Your task to perform on an android device: turn on notifications settings in the gmail app Image 0: 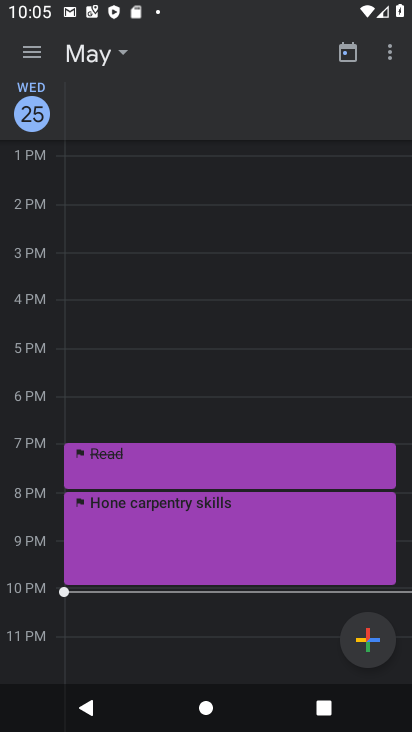
Step 0: press home button
Your task to perform on an android device: turn on notifications settings in the gmail app Image 1: 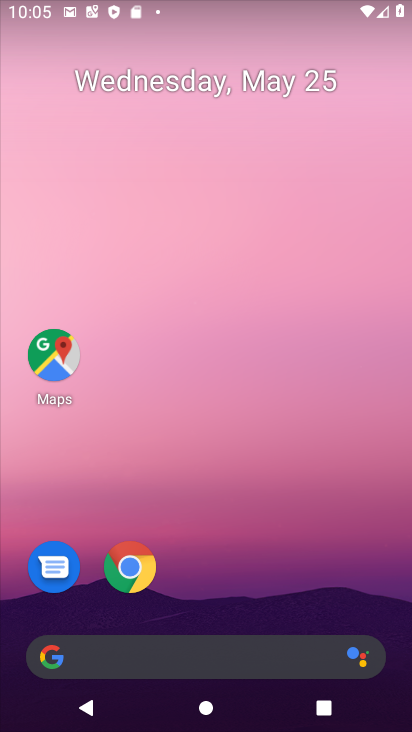
Step 1: drag from (257, 560) to (190, 14)
Your task to perform on an android device: turn on notifications settings in the gmail app Image 2: 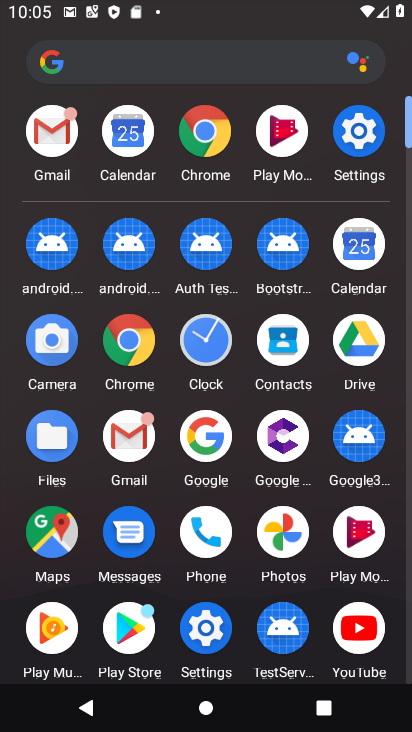
Step 2: click (361, 237)
Your task to perform on an android device: turn on notifications settings in the gmail app Image 3: 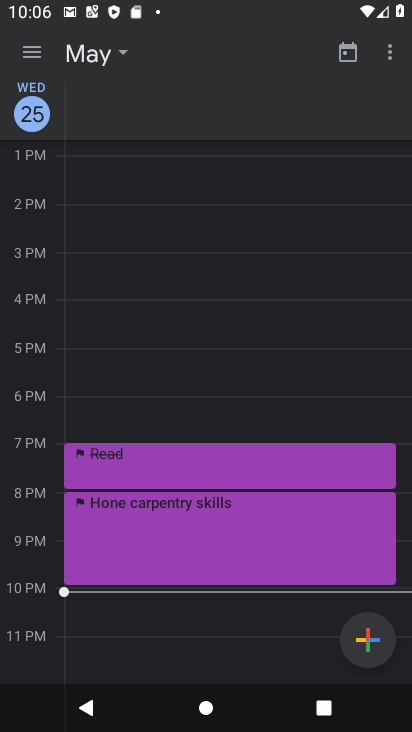
Step 3: task complete